Your task to perform on an android device: choose inbox layout in the gmail app Image 0: 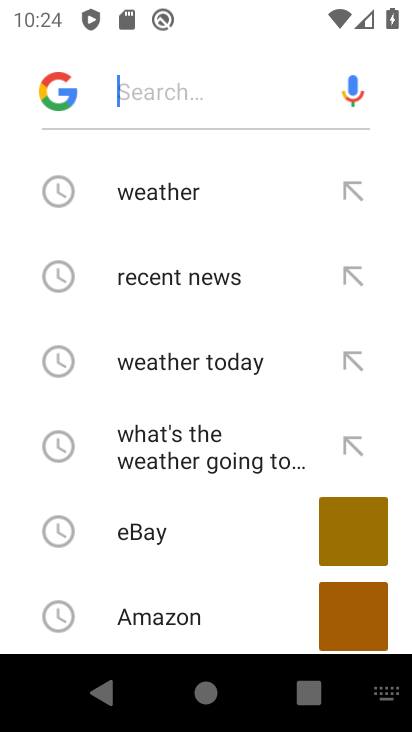
Step 0: press home button
Your task to perform on an android device: choose inbox layout in the gmail app Image 1: 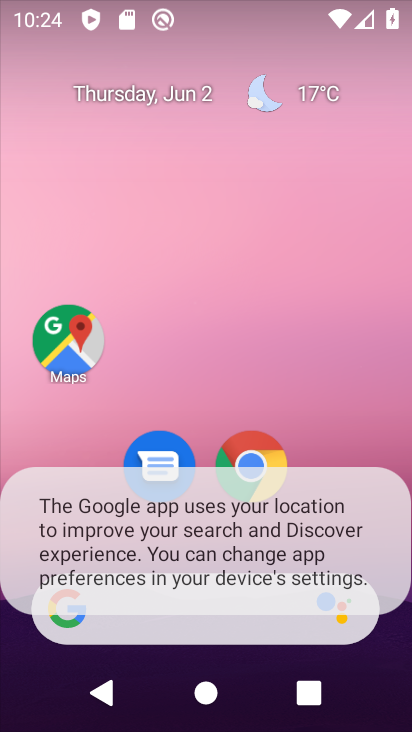
Step 1: drag from (168, 730) to (220, 144)
Your task to perform on an android device: choose inbox layout in the gmail app Image 2: 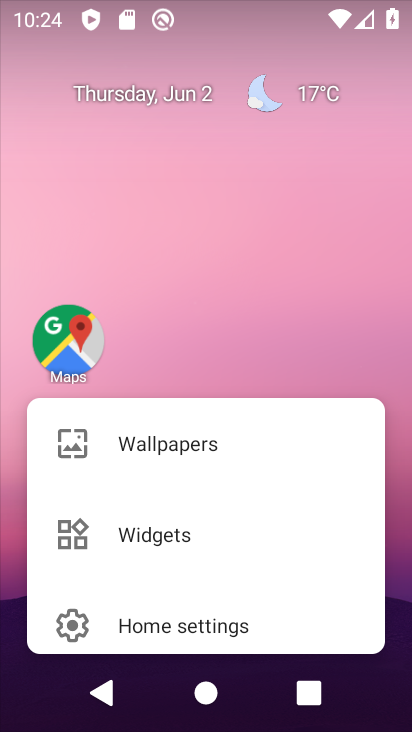
Step 2: press home button
Your task to perform on an android device: choose inbox layout in the gmail app Image 3: 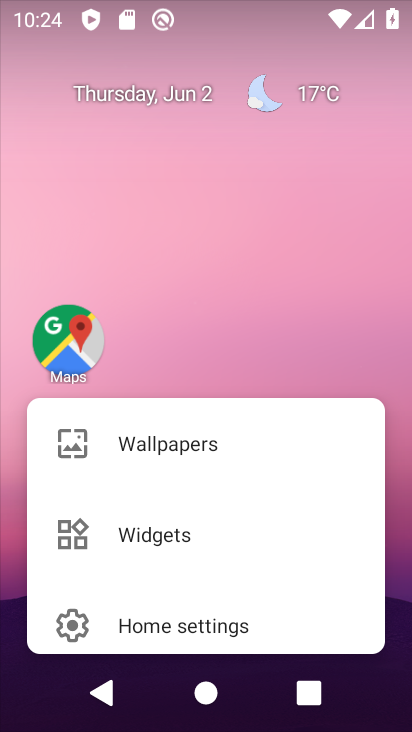
Step 3: drag from (157, 726) to (153, 109)
Your task to perform on an android device: choose inbox layout in the gmail app Image 4: 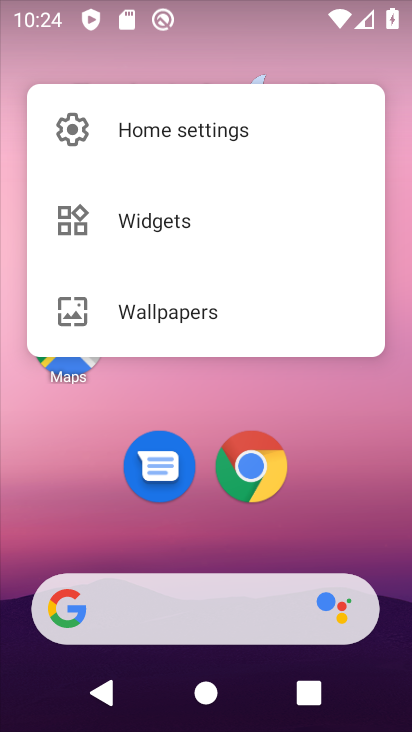
Step 4: drag from (161, 727) to (134, 100)
Your task to perform on an android device: choose inbox layout in the gmail app Image 5: 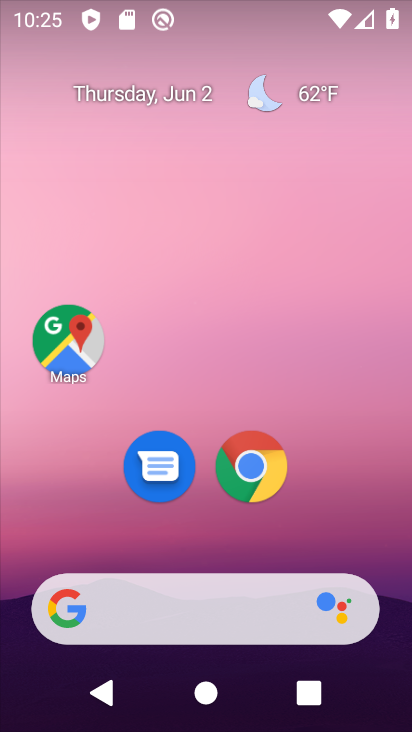
Step 5: press home button
Your task to perform on an android device: choose inbox layout in the gmail app Image 6: 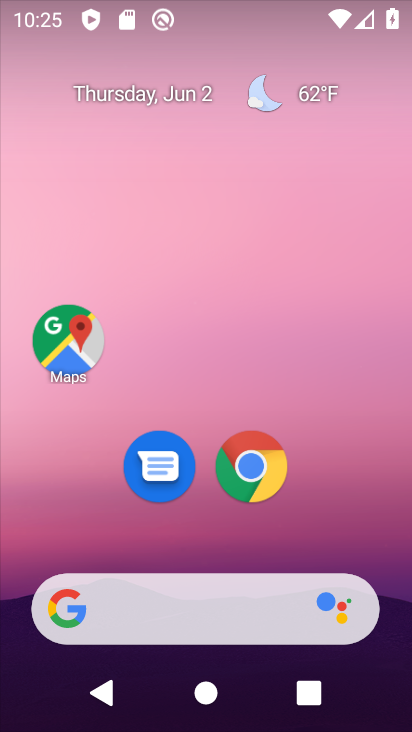
Step 6: drag from (146, 419) to (138, 60)
Your task to perform on an android device: choose inbox layout in the gmail app Image 7: 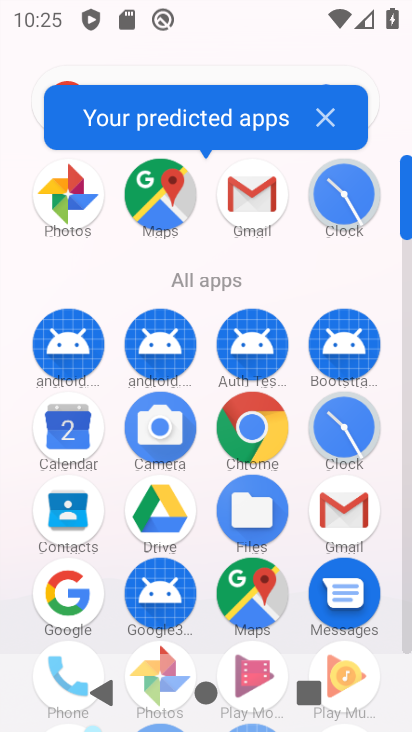
Step 7: click (354, 527)
Your task to perform on an android device: choose inbox layout in the gmail app Image 8: 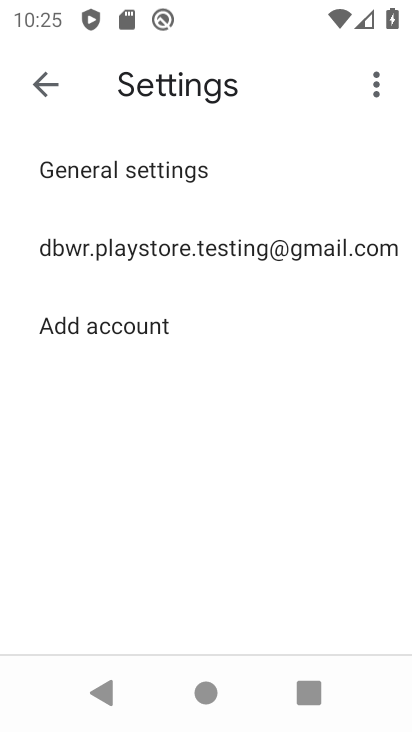
Step 8: click (110, 239)
Your task to perform on an android device: choose inbox layout in the gmail app Image 9: 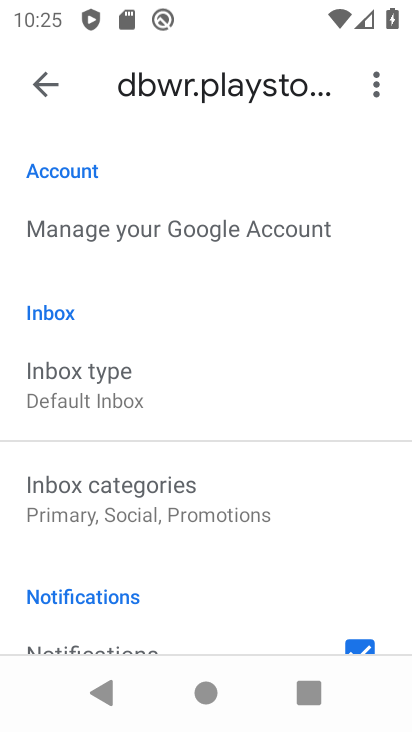
Step 9: click (103, 387)
Your task to perform on an android device: choose inbox layout in the gmail app Image 10: 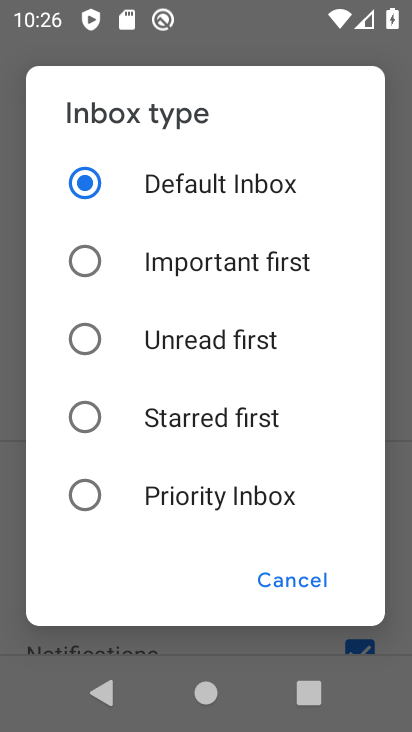
Step 10: task complete